Your task to perform on an android device: Go to Google maps Image 0: 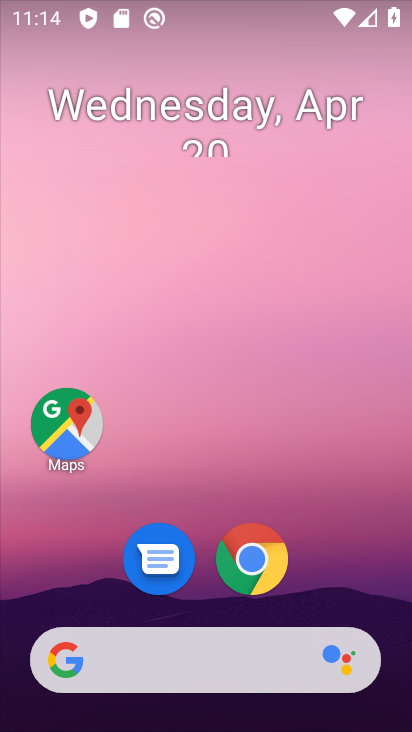
Step 0: click (68, 419)
Your task to perform on an android device: Go to Google maps Image 1: 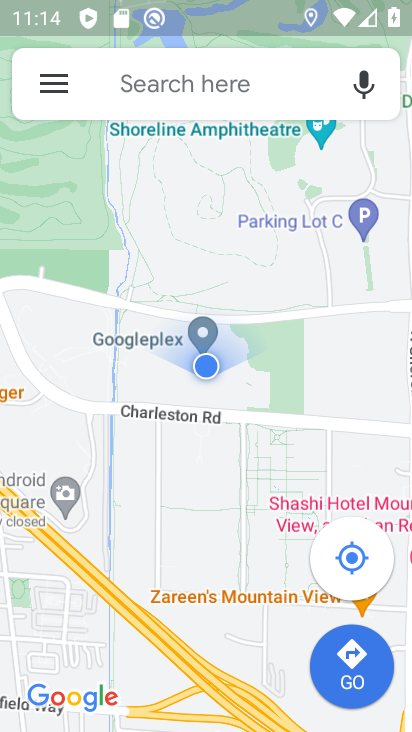
Step 1: task complete